Your task to perform on an android device: Open the map Image 0: 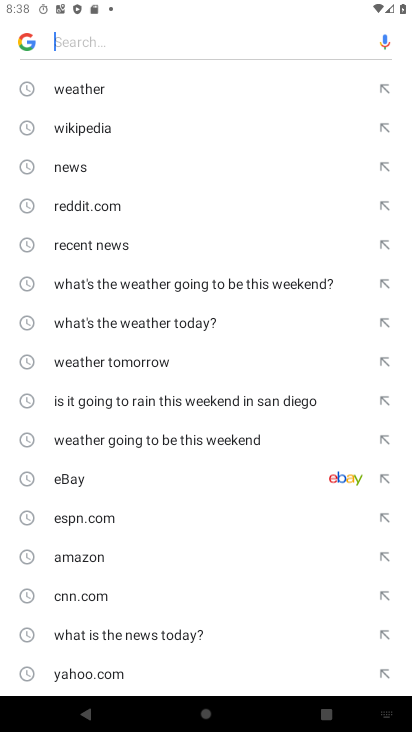
Step 0: press home button
Your task to perform on an android device: Open the map Image 1: 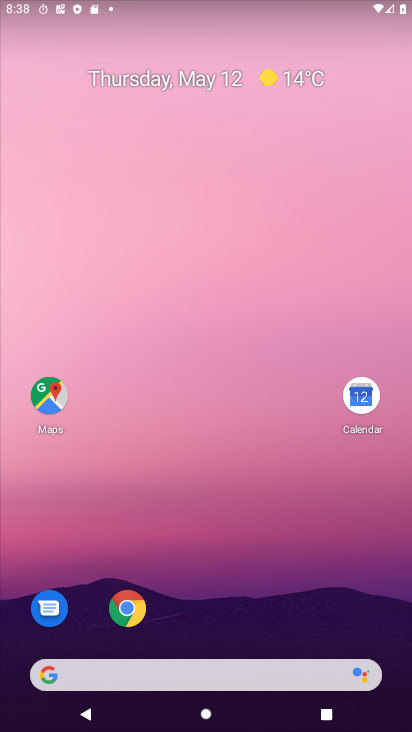
Step 1: click (64, 397)
Your task to perform on an android device: Open the map Image 2: 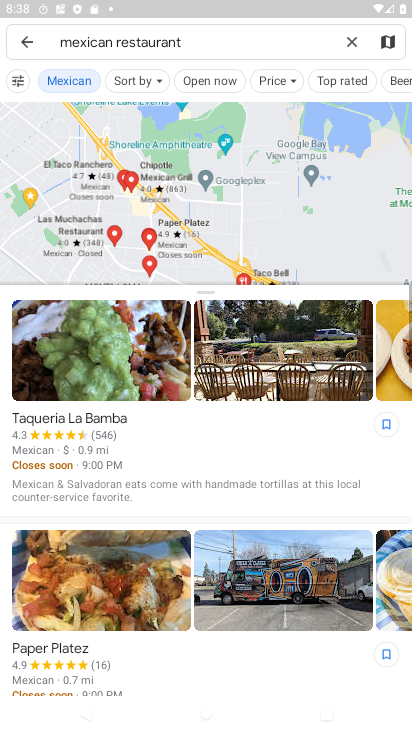
Step 2: task complete